Your task to perform on an android device: set the timer Image 0: 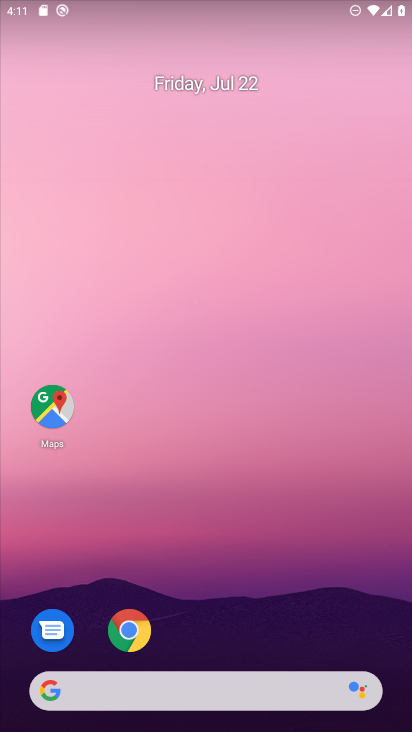
Step 0: drag from (224, 656) to (263, 63)
Your task to perform on an android device: set the timer Image 1: 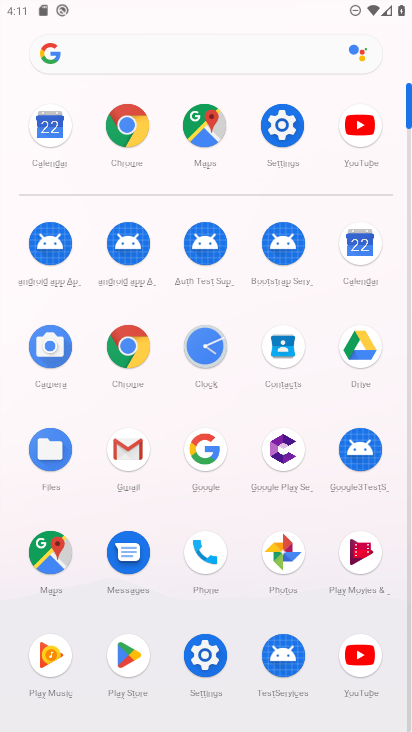
Step 1: click (211, 355)
Your task to perform on an android device: set the timer Image 2: 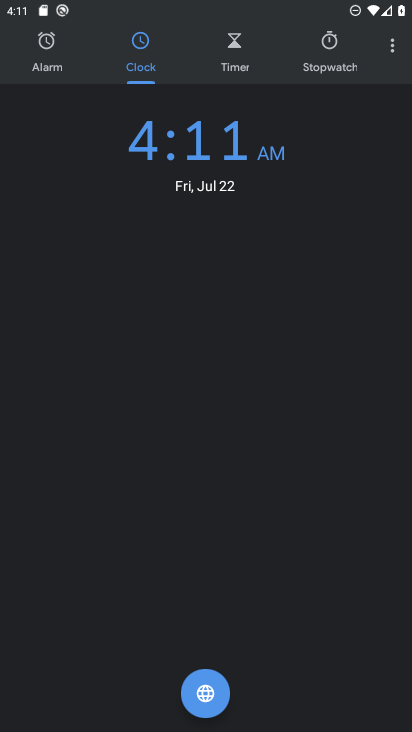
Step 2: click (239, 64)
Your task to perform on an android device: set the timer Image 3: 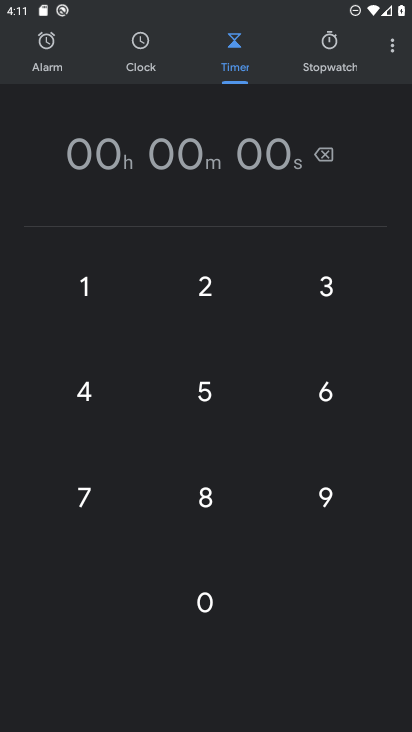
Step 3: click (207, 498)
Your task to perform on an android device: set the timer Image 4: 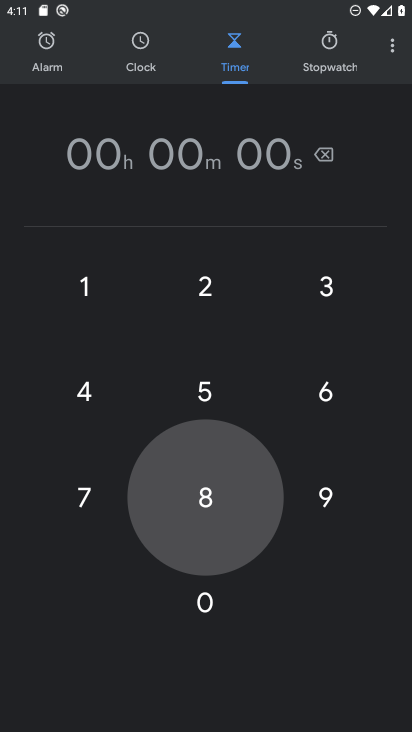
Step 4: click (194, 390)
Your task to perform on an android device: set the timer Image 5: 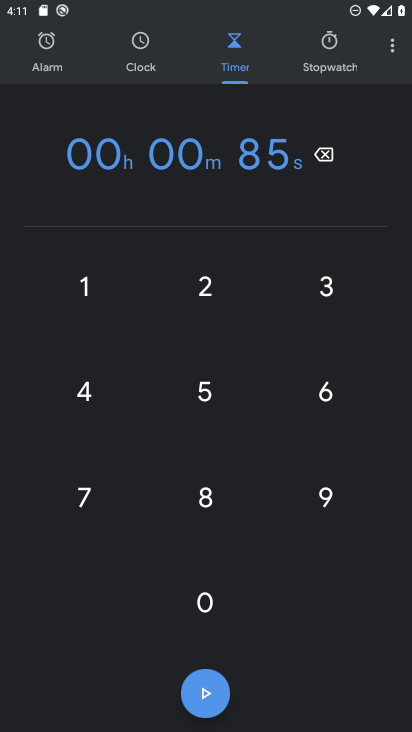
Step 5: click (207, 293)
Your task to perform on an android device: set the timer Image 6: 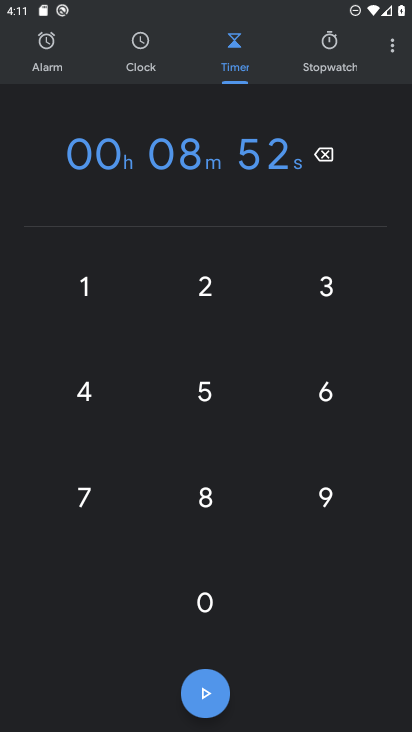
Step 6: click (218, 704)
Your task to perform on an android device: set the timer Image 7: 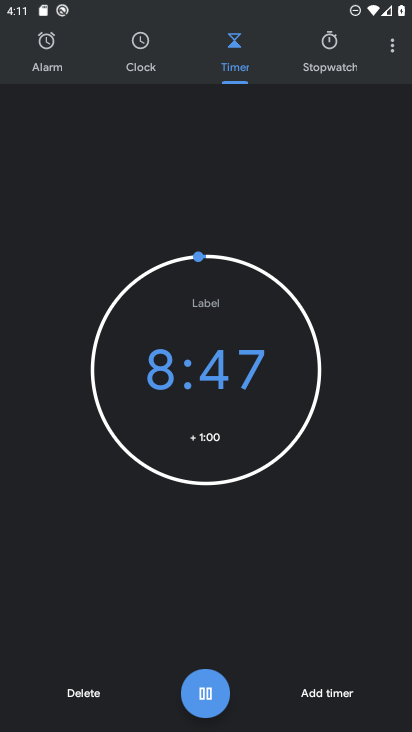
Step 7: task complete